Your task to perform on an android device: Open the stopwatch Image 0: 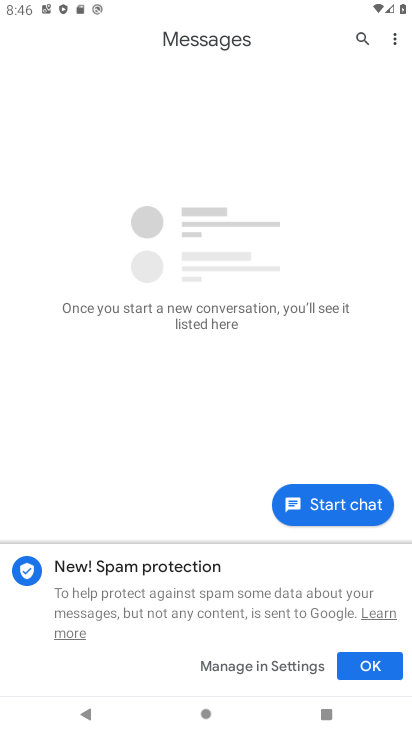
Step 0: press home button
Your task to perform on an android device: Open the stopwatch Image 1: 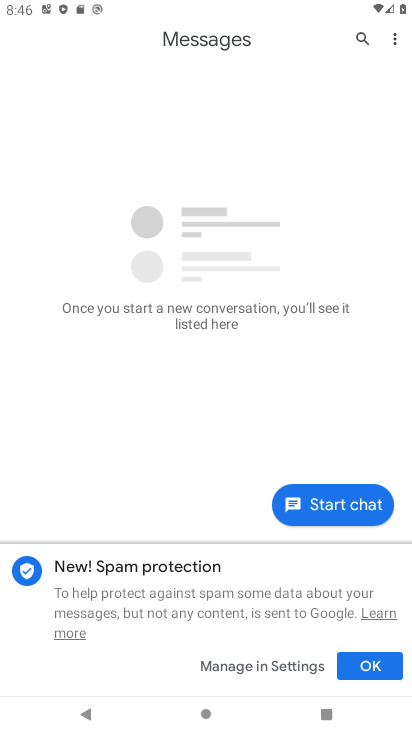
Step 1: press home button
Your task to perform on an android device: Open the stopwatch Image 2: 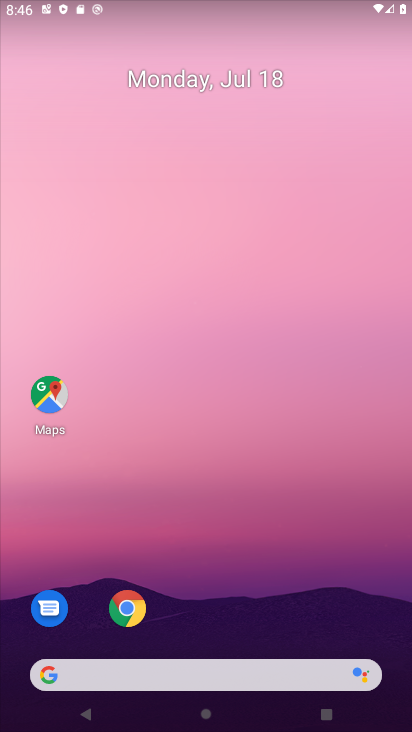
Step 2: drag from (246, 726) to (233, 75)
Your task to perform on an android device: Open the stopwatch Image 3: 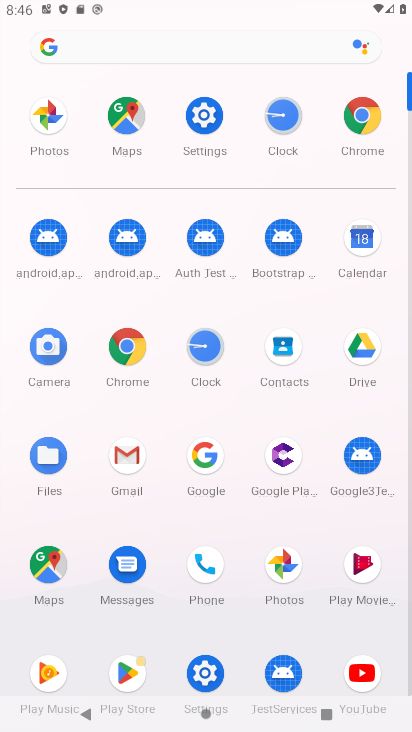
Step 3: click (199, 346)
Your task to perform on an android device: Open the stopwatch Image 4: 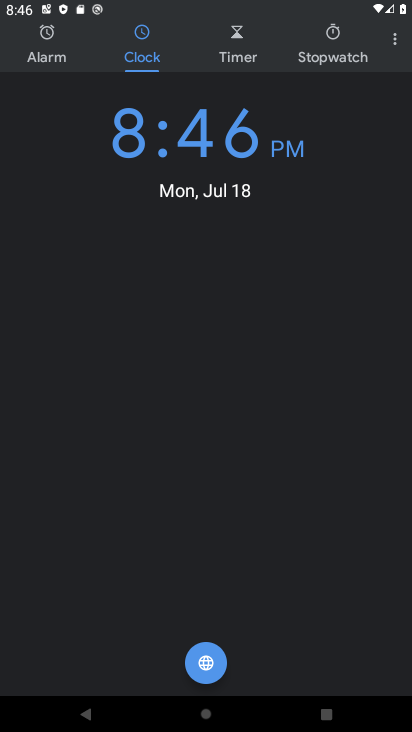
Step 4: click (340, 51)
Your task to perform on an android device: Open the stopwatch Image 5: 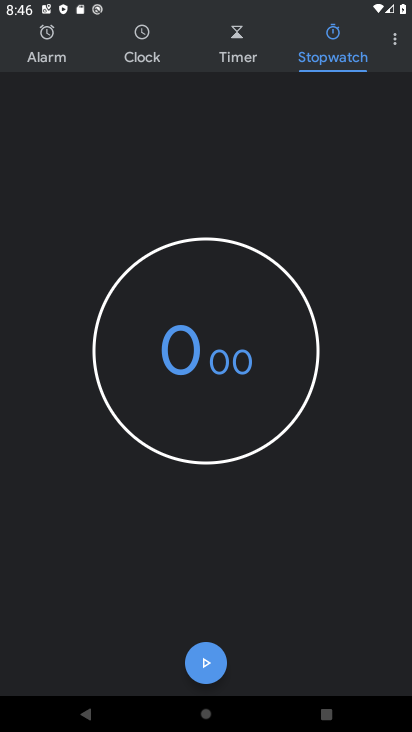
Step 5: task complete